Your task to perform on an android device: Find coffee shops on Maps Image 0: 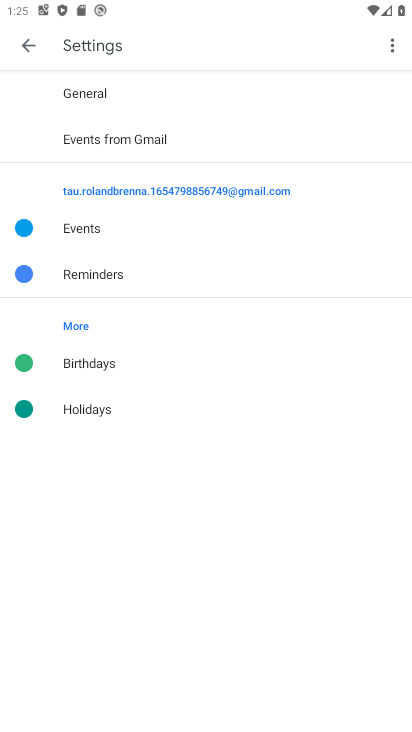
Step 0: press home button
Your task to perform on an android device: Find coffee shops on Maps Image 1: 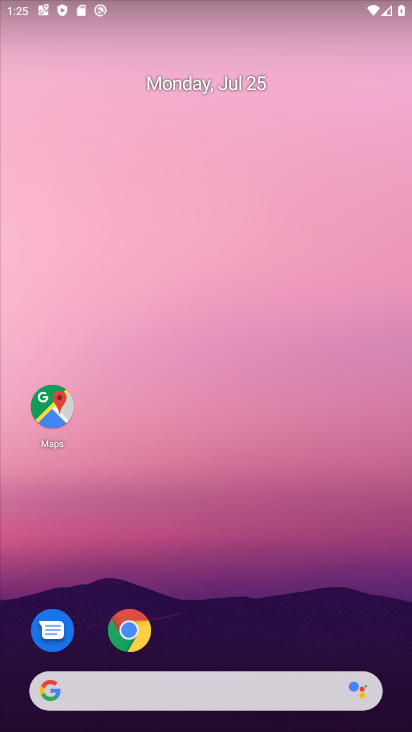
Step 1: click (53, 398)
Your task to perform on an android device: Find coffee shops on Maps Image 2: 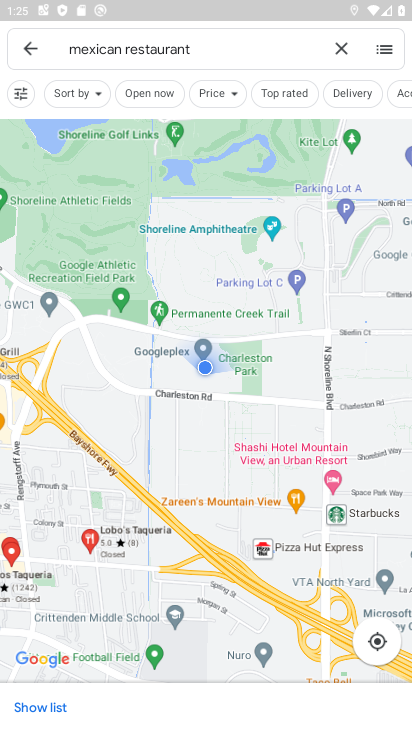
Step 2: click (328, 48)
Your task to perform on an android device: Find coffee shops on Maps Image 3: 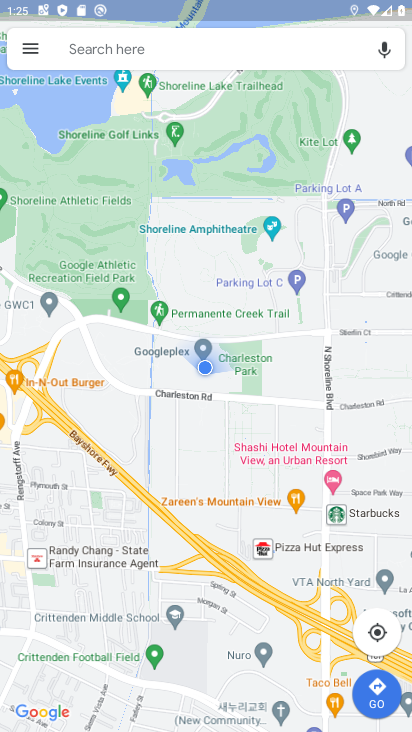
Step 3: click (154, 41)
Your task to perform on an android device: Find coffee shops on Maps Image 4: 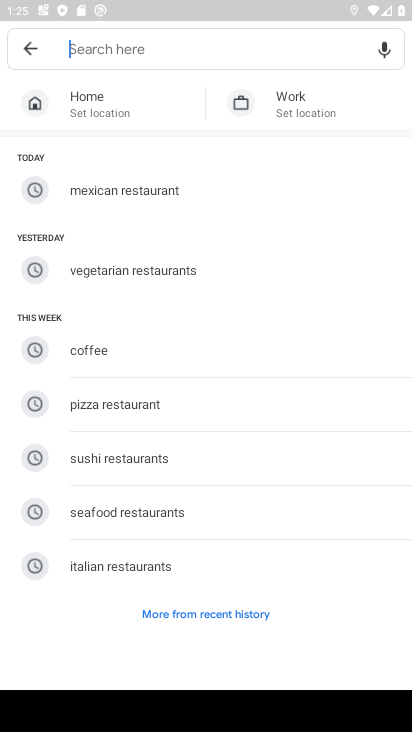
Step 4: click (143, 338)
Your task to perform on an android device: Find coffee shops on Maps Image 5: 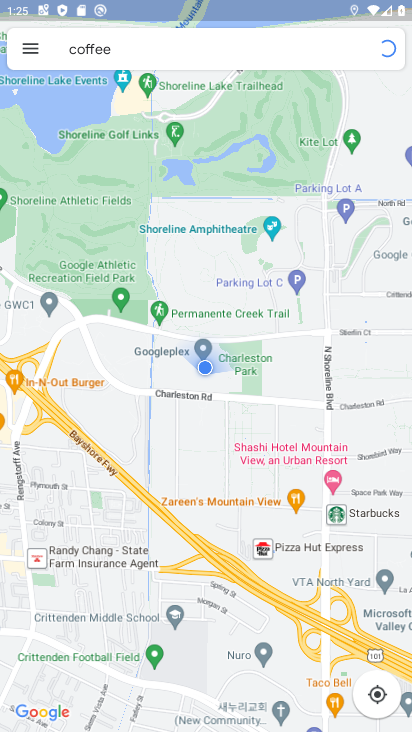
Step 5: task complete